Your task to perform on an android device: turn on bluetooth scan Image 0: 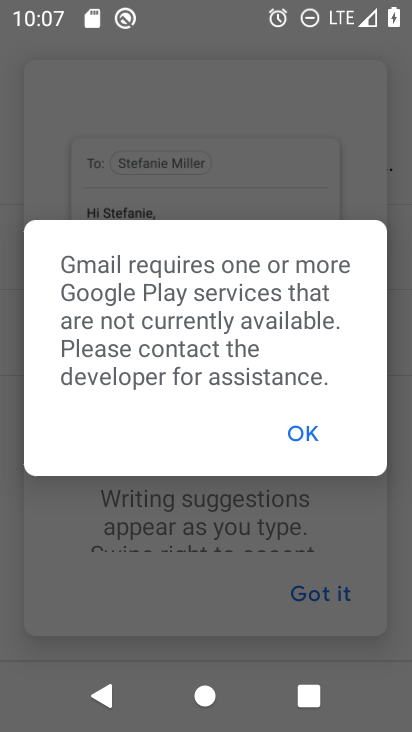
Step 0: press home button
Your task to perform on an android device: turn on bluetooth scan Image 1: 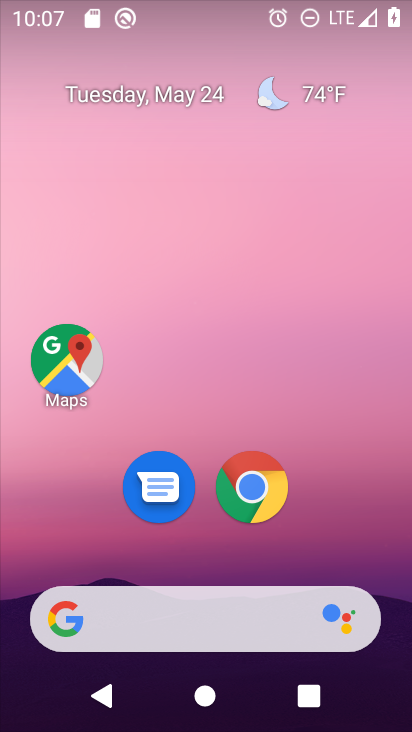
Step 1: drag from (350, 572) to (301, 3)
Your task to perform on an android device: turn on bluetooth scan Image 2: 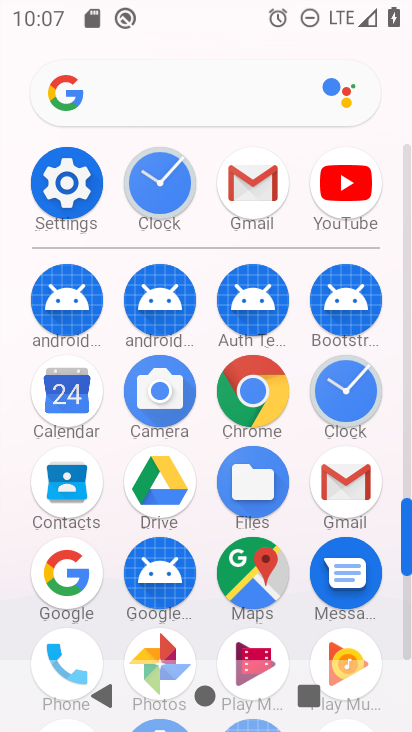
Step 2: click (58, 191)
Your task to perform on an android device: turn on bluetooth scan Image 3: 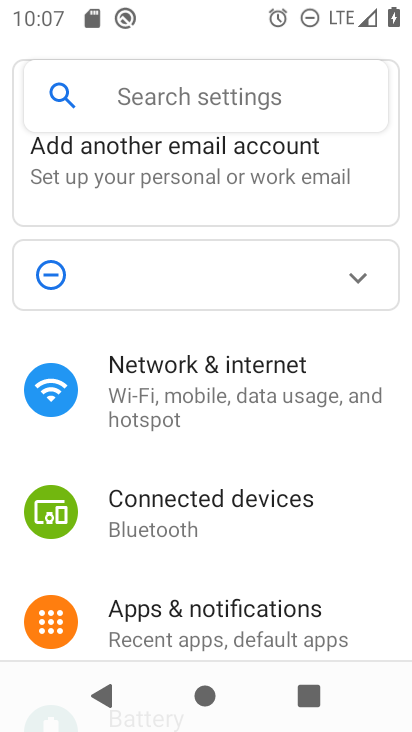
Step 3: drag from (316, 599) to (306, 73)
Your task to perform on an android device: turn on bluetooth scan Image 4: 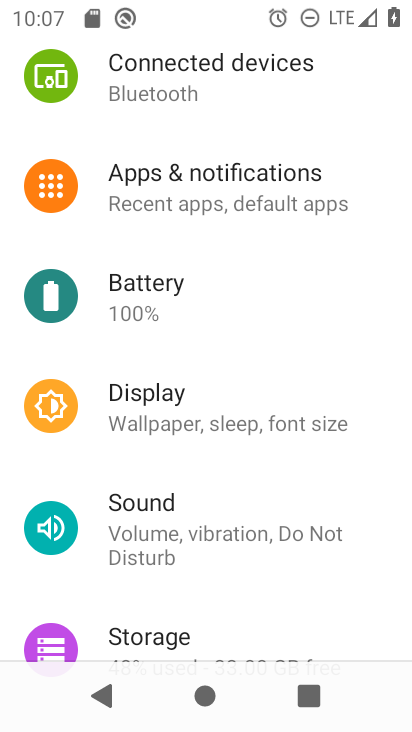
Step 4: drag from (282, 540) to (275, 138)
Your task to perform on an android device: turn on bluetooth scan Image 5: 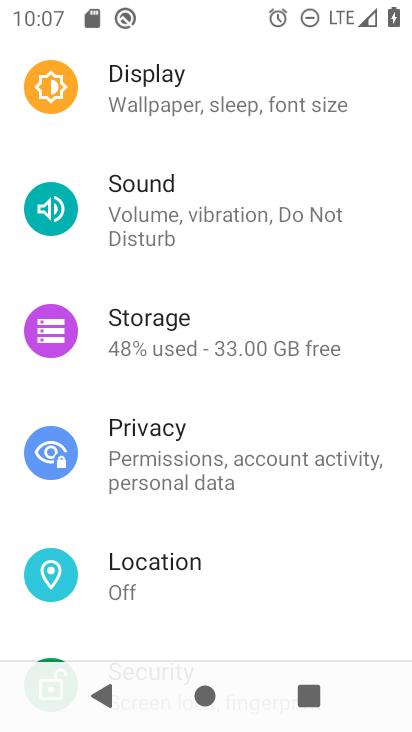
Step 5: drag from (248, 513) to (233, 194)
Your task to perform on an android device: turn on bluetooth scan Image 6: 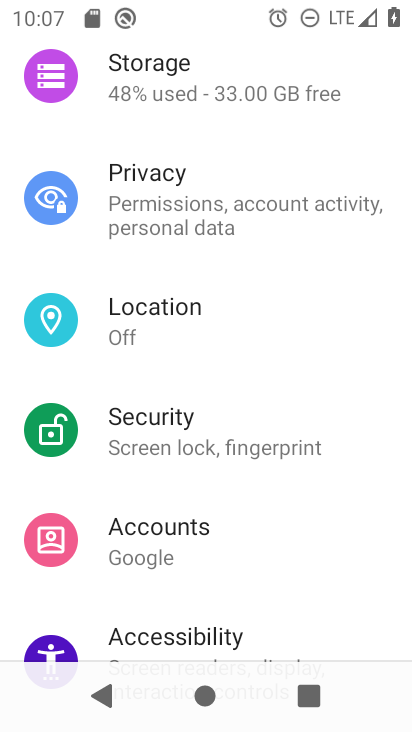
Step 6: click (172, 312)
Your task to perform on an android device: turn on bluetooth scan Image 7: 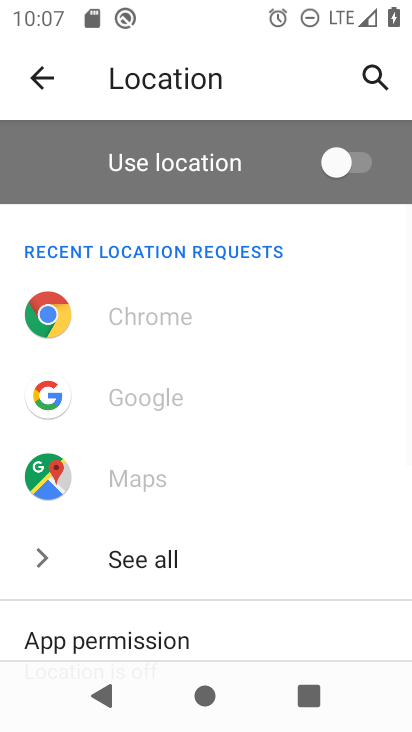
Step 7: drag from (244, 506) to (232, 100)
Your task to perform on an android device: turn on bluetooth scan Image 8: 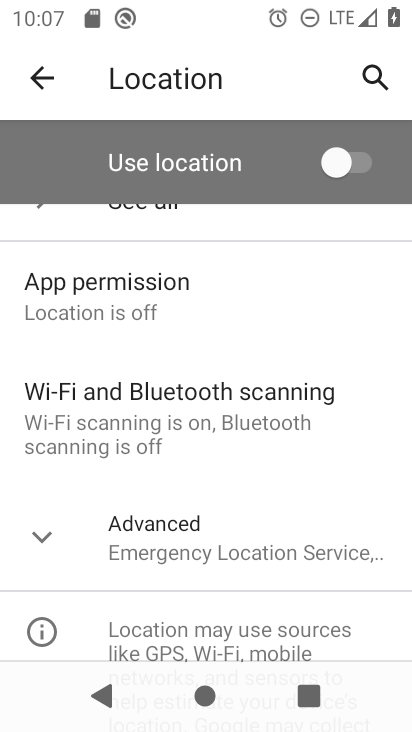
Step 8: click (158, 425)
Your task to perform on an android device: turn on bluetooth scan Image 9: 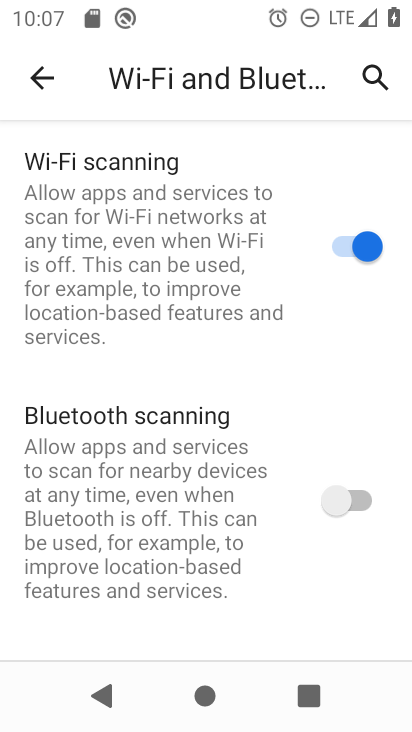
Step 9: click (347, 507)
Your task to perform on an android device: turn on bluetooth scan Image 10: 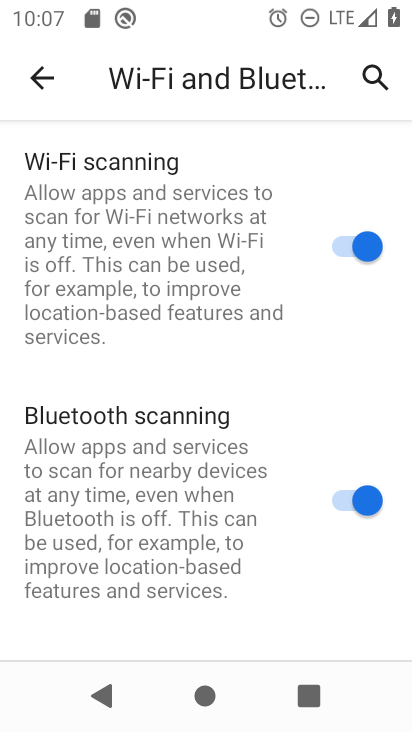
Step 10: task complete